Your task to perform on an android device: Go to CNN.com Image 0: 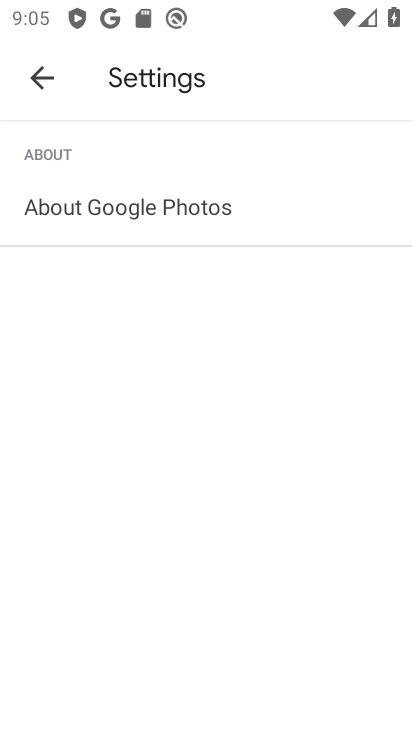
Step 0: press home button
Your task to perform on an android device: Go to CNN.com Image 1: 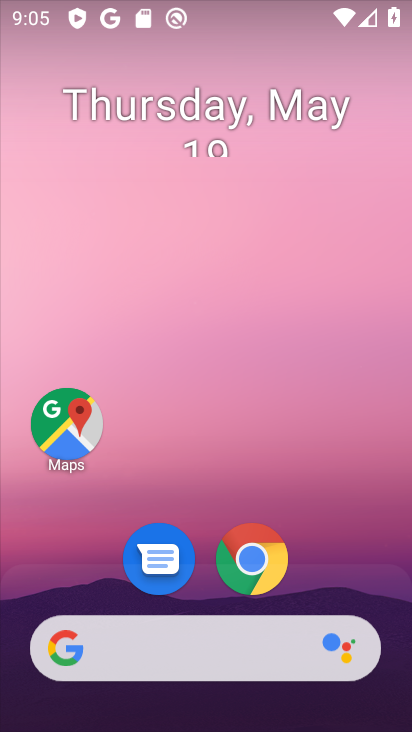
Step 1: click (264, 556)
Your task to perform on an android device: Go to CNN.com Image 2: 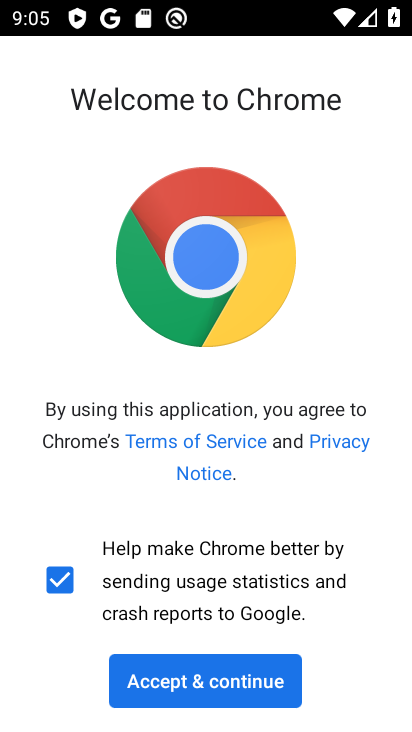
Step 2: click (243, 688)
Your task to perform on an android device: Go to CNN.com Image 3: 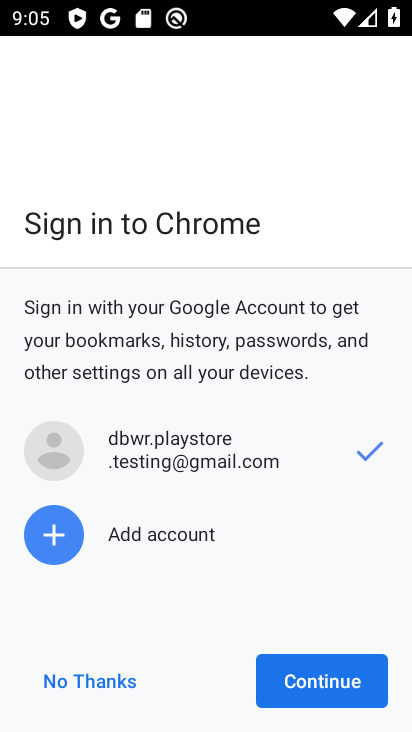
Step 3: click (314, 678)
Your task to perform on an android device: Go to CNN.com Image 4: 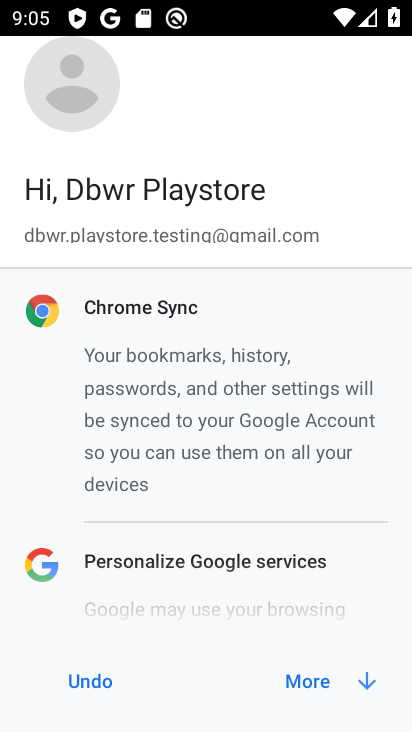
Step 4: click (314, 678)
Your task to perform on an android device: Go to CNN.com Image 5: 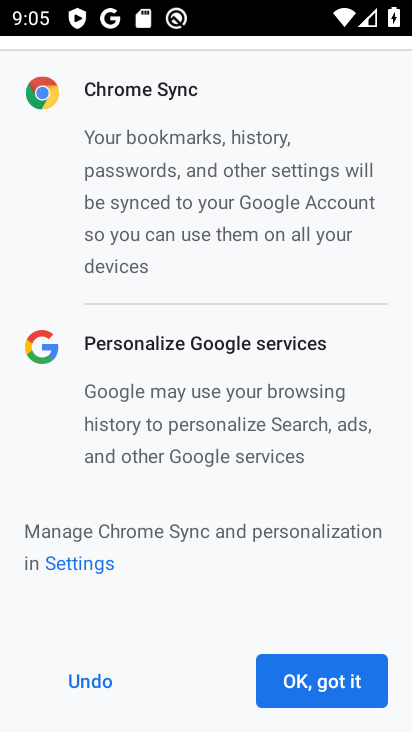
Step 5: click (314, 678)
Your task to perform on an android device: Go to CNN.com Image 6: 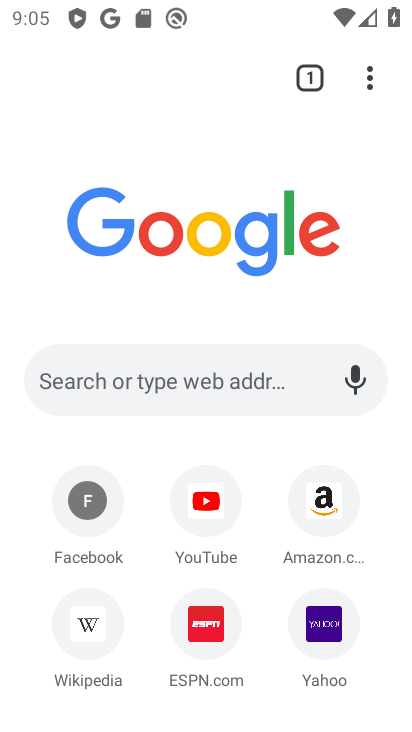
Step 6: click (273, 367)
Your task to perform on an android device: Go to CNN.com Image 7: 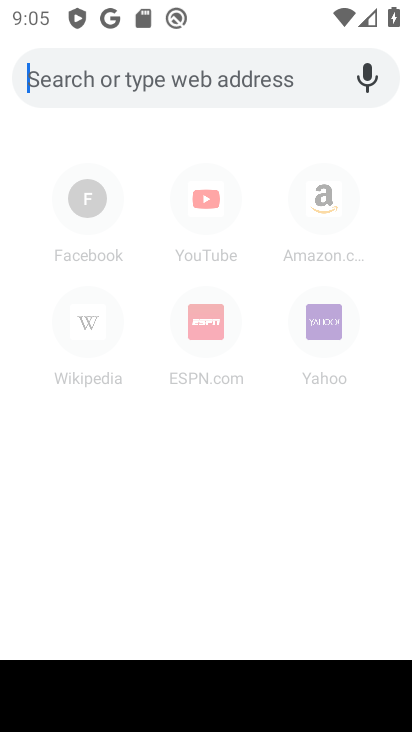
Step 7: type "cnn.com"
Your task to perform on an android device: Go to CNN.com Image 8: 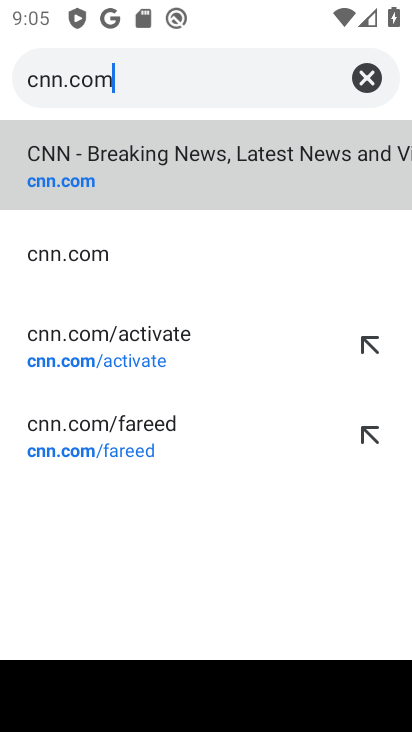
Step 8: click (90, 181)
Your task to perform on an android device: Go to CNN.com Image 9: 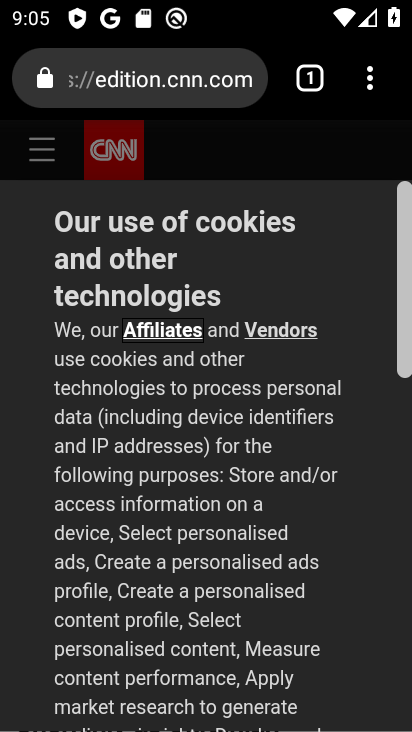
Step 9: task complete